Your task to perform on an android device: turn off location history Image 0: 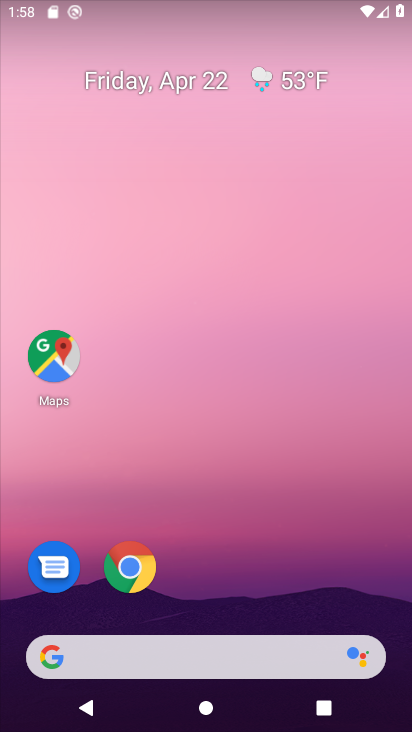
Step 0: drag from (300, 532) to (311, 45)
Your task to perform on an android device: turn off location history Image 1: 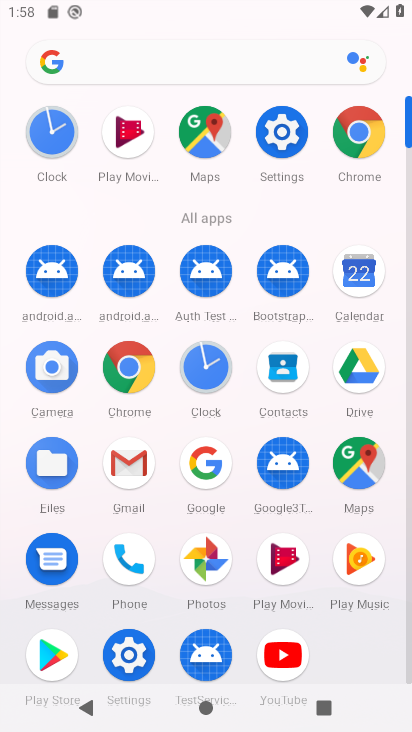
Step 1: click (289, 140)
Your task to perform on an android device: turn off location history Image 2: 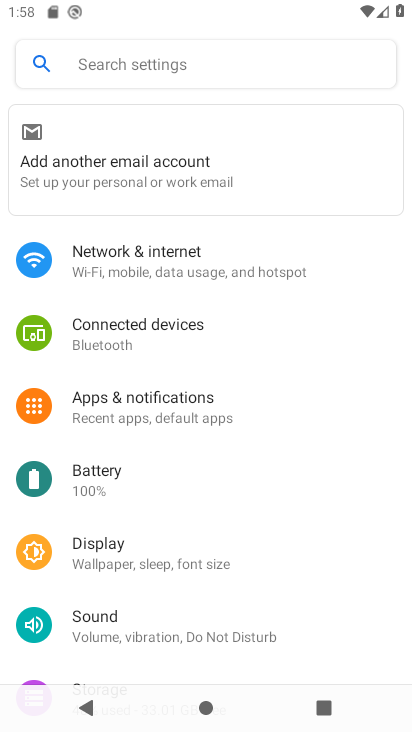
Step 2: drag from (235, 521) to (289, 86)
Your task to perform on an android device: turn off location history Image 3: 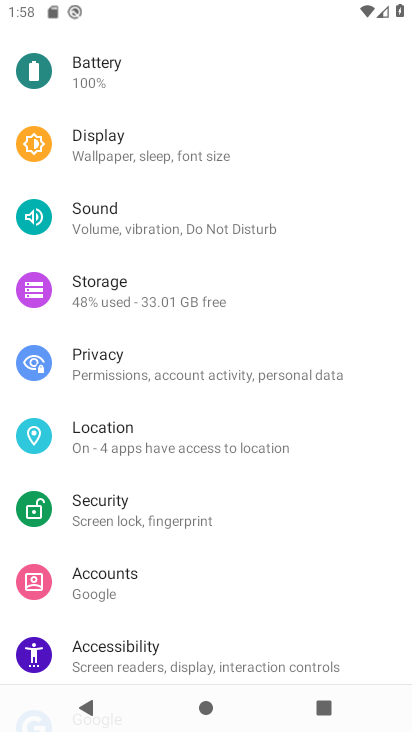
Step 3: click (194, 432)
Your task to perform on an android device: turn off location history Image 4: 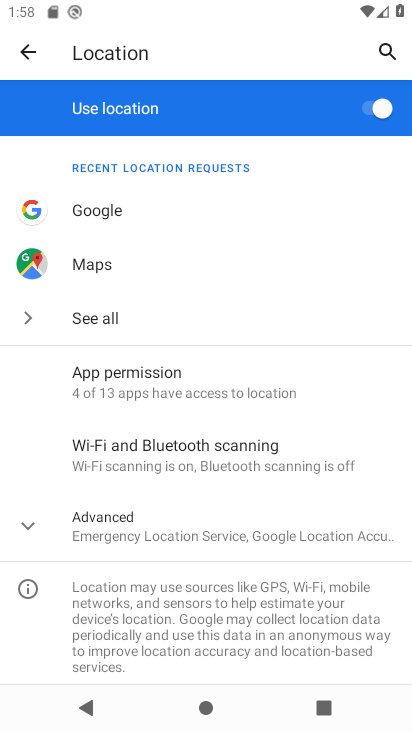
Step 4: click (22, 521)
Your task to perform on an android device: turn off location history Image 5: 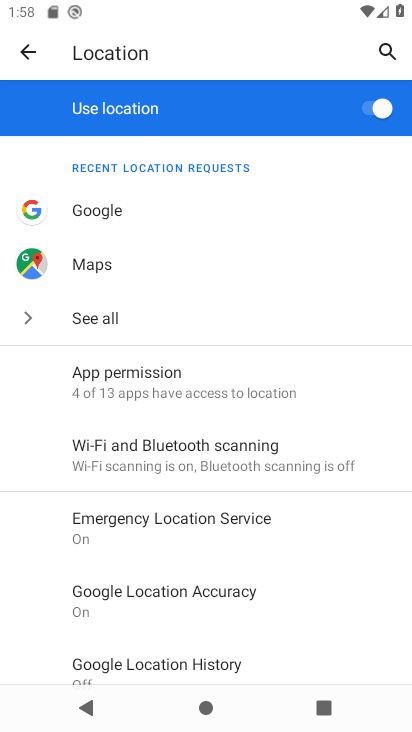
Step 5: task complete